Your task to perform on an android device: Go to privacy settings Image 0: 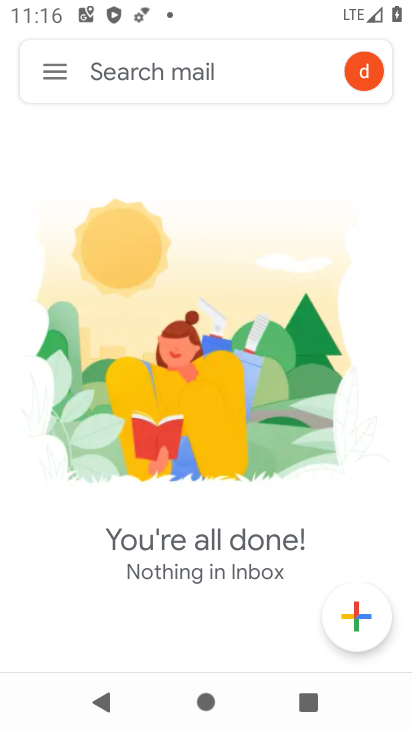
Step 0: press home button
Your task to perform on an android device: Go to privacy settings Image 1: 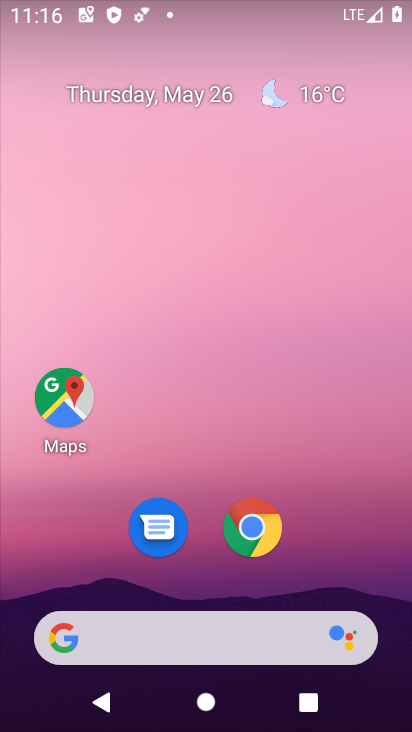
Step 1: drag from (207, 578) to (211, 21)
Your task to perform on an android device: Go to privacy settings Image 2: 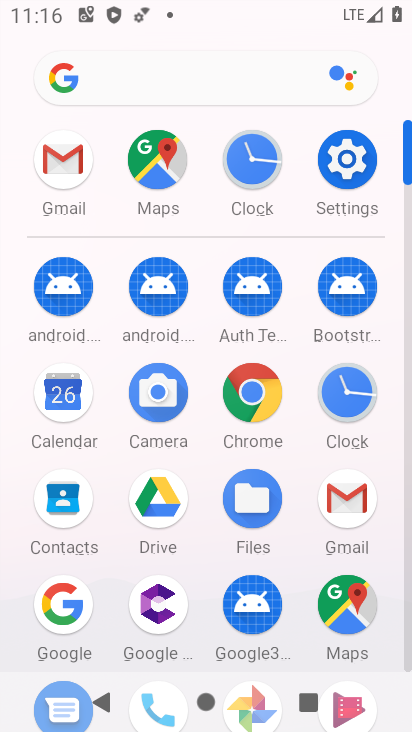
Step 2: click (343, 158)
Your task to perform on an android device: Go to privacy settings Image 3: 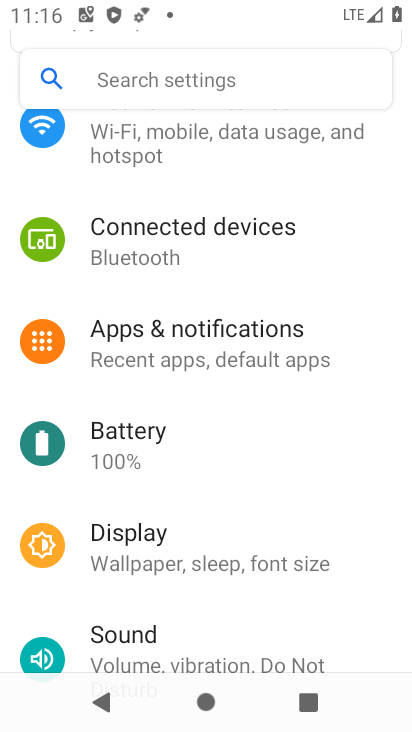
Step 3: drag from (119, 567) to (119, 172)
Your task to perform on an android device: Go to privacy settings Image 4: 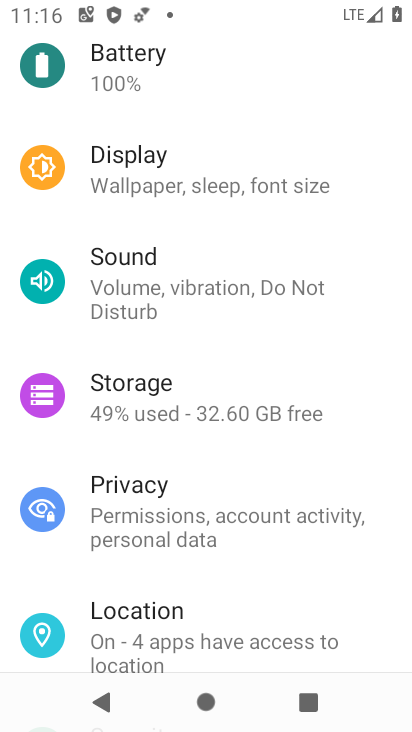
Step 4: click (160, 534)
Your task to perform on an android device: Go to privacy settings Image 5: 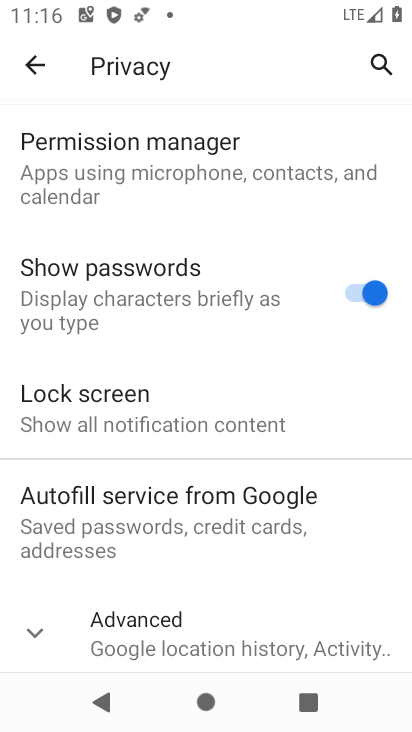
Step 5: task complete